Your task to perform on an android device: Is it going to rain tomorrow? Image 0: 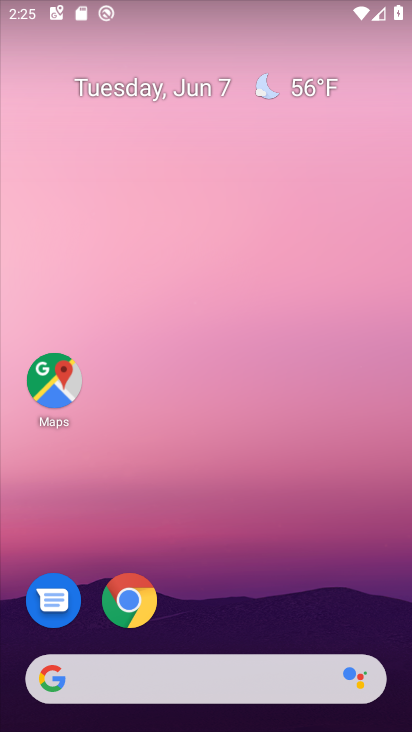
Step 0: drag from (252, 626) to (316, 157)
Your task to perform on an android device: Is it going to rain tomorrow? Image 1: 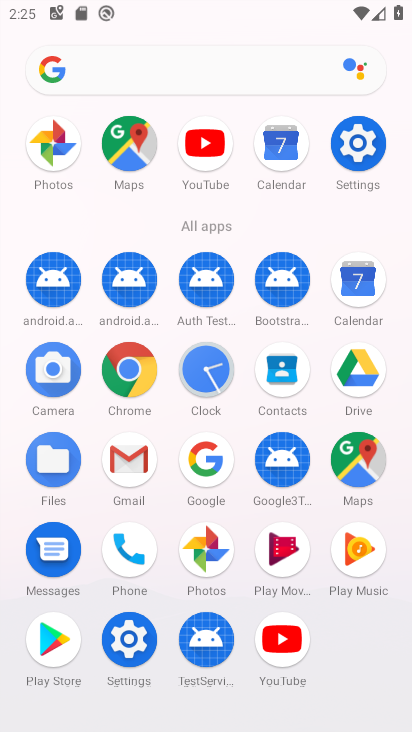
Step 1: click (173, 64)
Your task to perform on an android device: Is it going to rain tomorrow? Image 2: 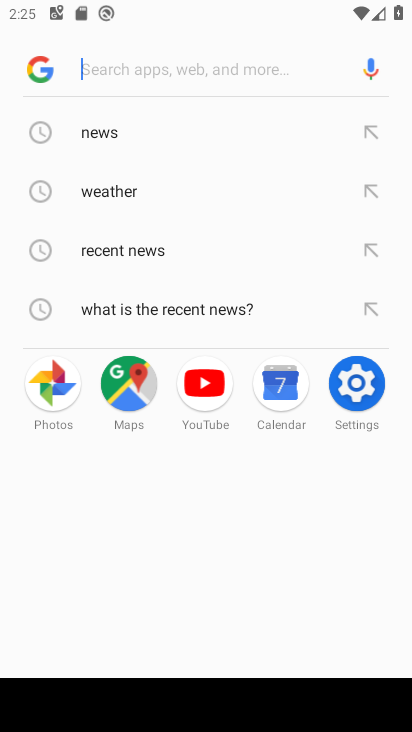
Step 2: click (133, 197)
Your task to perform on an android device: Is it going to rain tomorrow? Image 3: 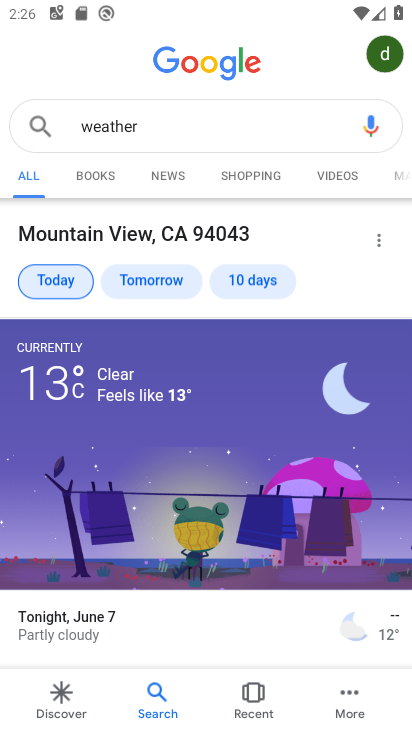
Step 3: click (163, 281)
Your task to perform on an android device: Is it going to rain tomorrow? Image 4: 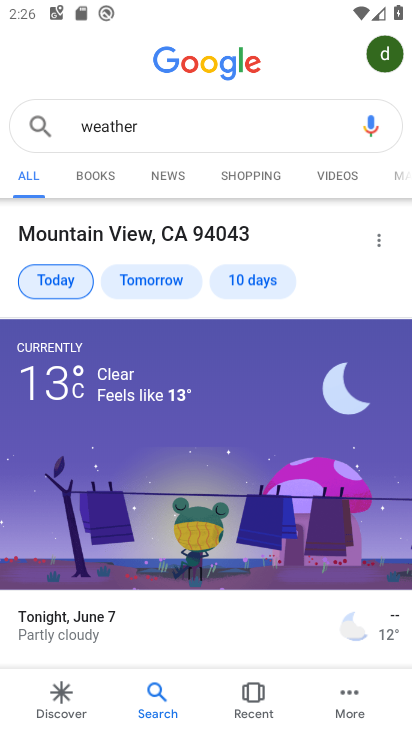
Step 4: click (123, 266)
Your task to perform on an android device: Is it going to rain tomorrow? Image 5: 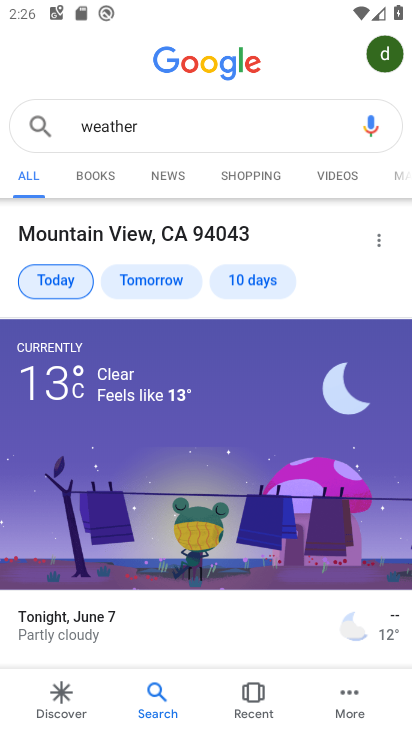
Step 5: click (145, 282)
Your task to perform on an android device: Is it going to rain tomorrow? Image 6: 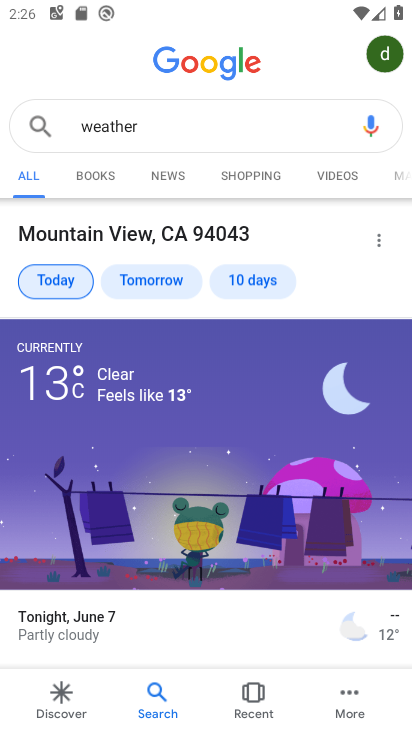
Step 6: click (148, 285)
Your task to perform on an android device: Is it going to rain tomorrow? Image 7: 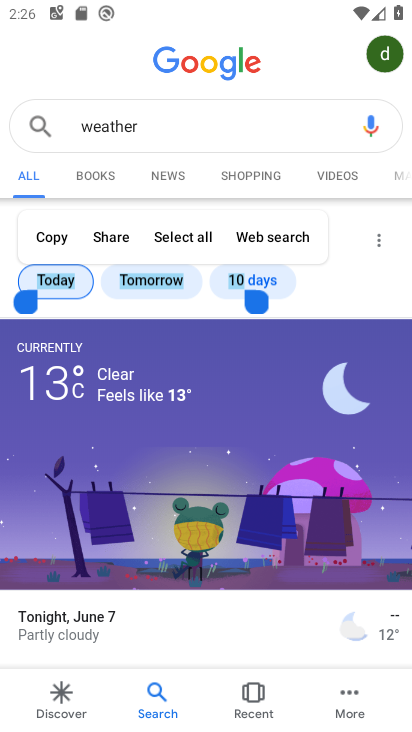
Step 7: click (148, 289)
Your task to perform on an android device: Is it going to rain tomorrow? Image 8: 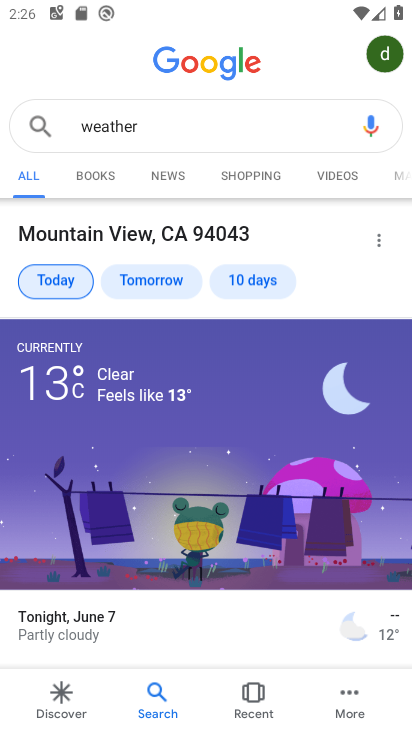
Step 8: click (163, 283)
Your task to perform on an android device: Is it going to rain tomorrow? Image 9: 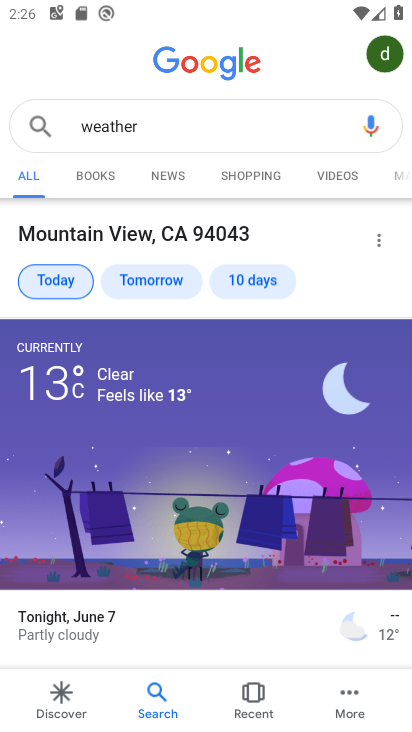
Step 9: drag from (167, 354) to (175, 313)
Your task to perform on an android device: Is it going to rain tomorrow? Image 10: 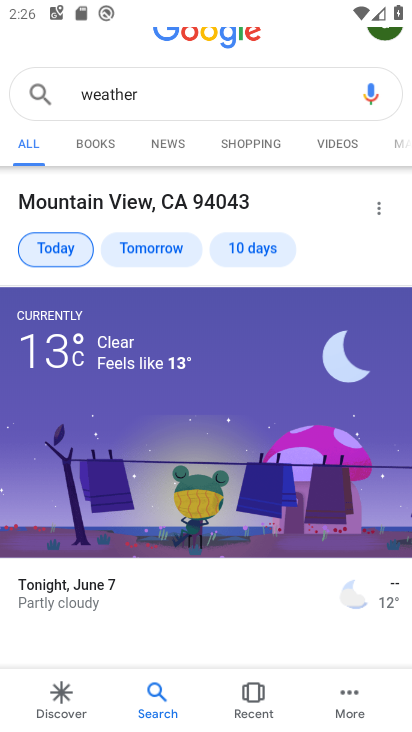
Step 10: click (169, 249)
Your task to perform on an android device: Is it going to rain tomorrow? Image 11: 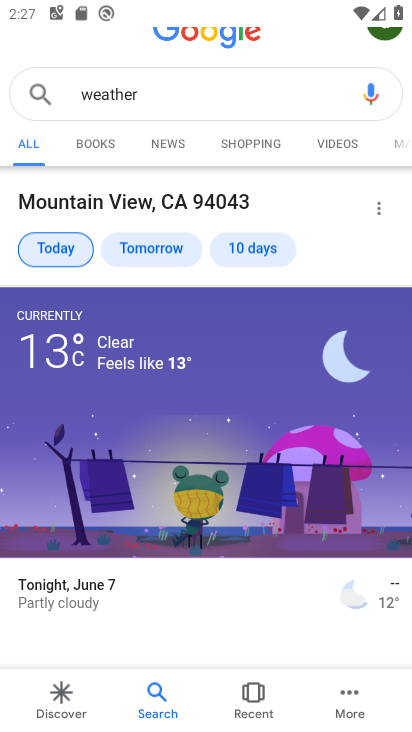
Step 11: click (163, 249)
Your task to perform on an android device: Is it going to rain tomorrow? Image 12: 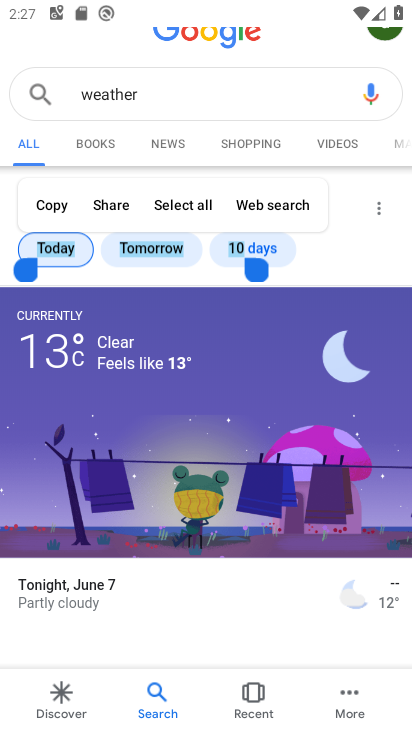
Step 12: task complete